Your task to perform on an android device: turn off data saver in the chrome app Image 0: 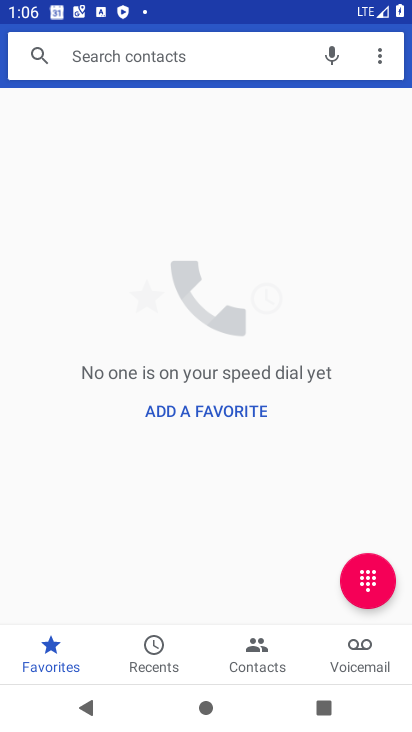
Step 0: press home button
Your task to perform on an android device: turn off data saver in the chrome app Image 1: 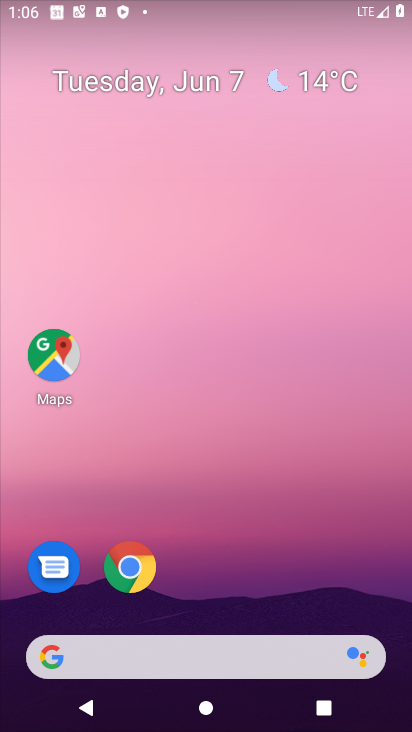
Step 1: drag from (293, 210) to (289, 155)
Your task to perform on an android device: turn off data saver in the chrome app Image 2: 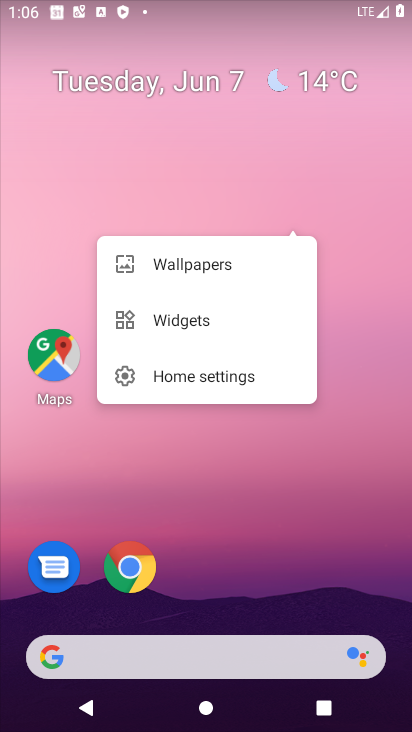
Step 2: click (295, 538)
Your task to perform on an android device: turn off data saver in the chrome app Image 3: 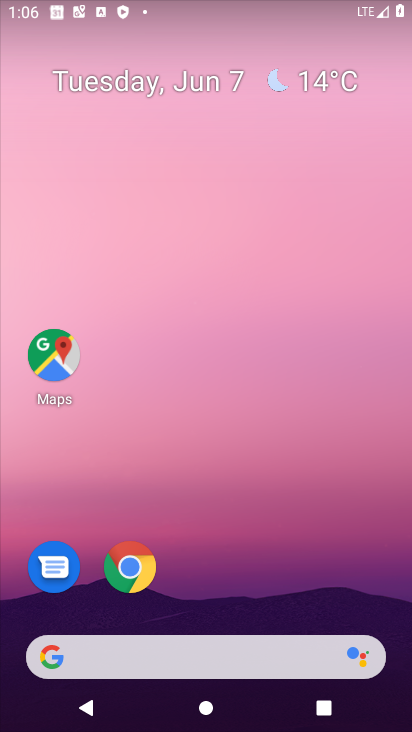
Step 3: drag from (262, 636) to (303, 8)
Your task to perform on an android device: turn off data saver in the chrome app Image 4: 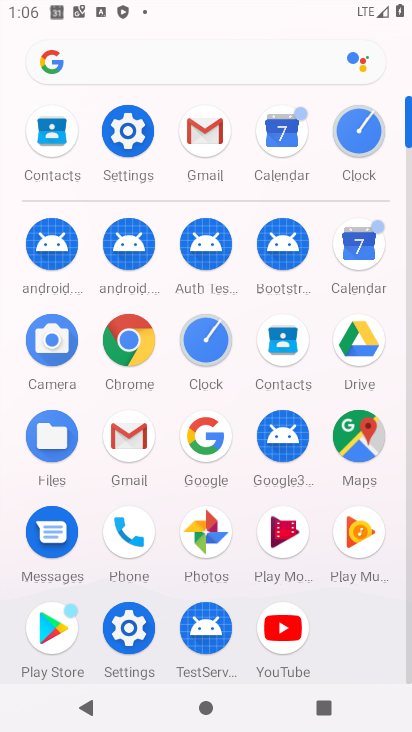
Step 4: click (106, 342)
Your task to perform on an android device: turn off data saver in the chrome app Image 5: 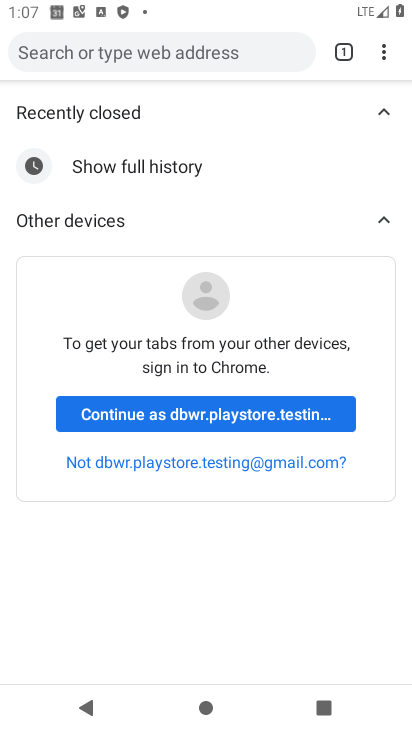
Step 5: click (387, 41)
Your task to perform on an android device: turn off data saver in the chrome app Image 6: 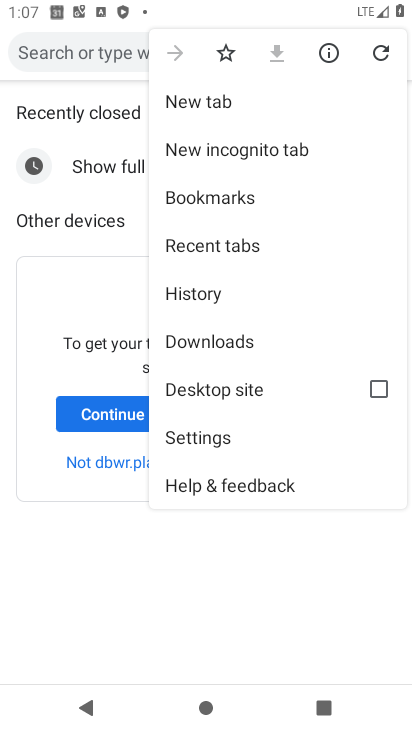
Step 6: click (218, 438)
Your task to perform on an android device: turn off data saver in the chrome app Image 7: 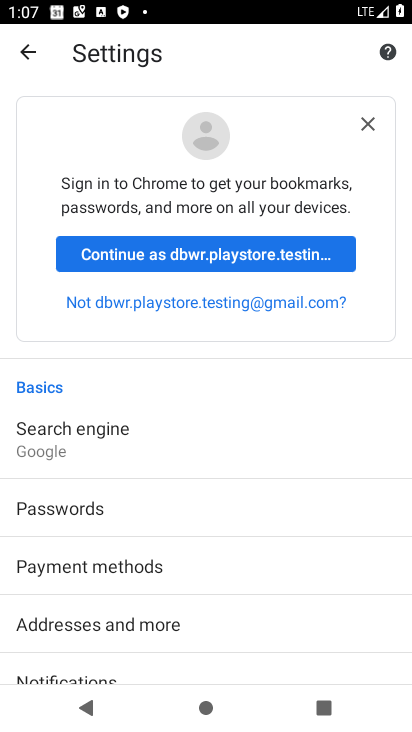
Step 7: drag from (217, 602) to (243, 122)
Your task to perform on an android device: turn off data saver in the chrome app Image 8: 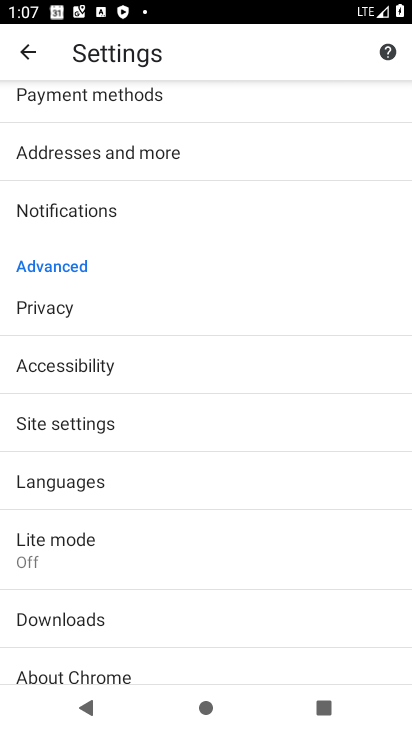
Step 8: click (112, 536)
Your task to perform on an android device: turn off data saver in the chrome app Image 9: 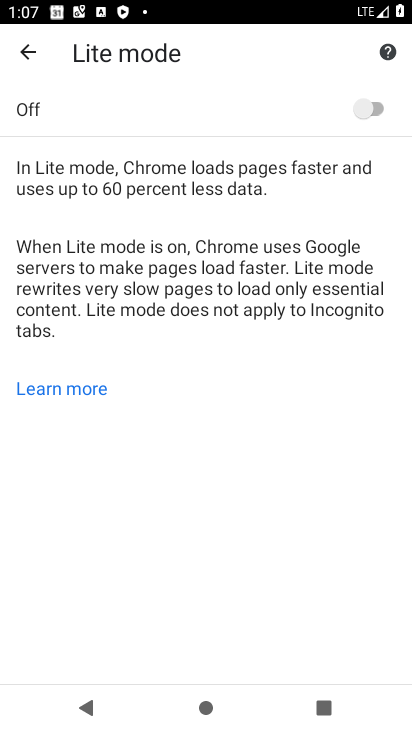
Step 9: task complete